Your task to perform on an android device: Open Google Chrome Image 0: 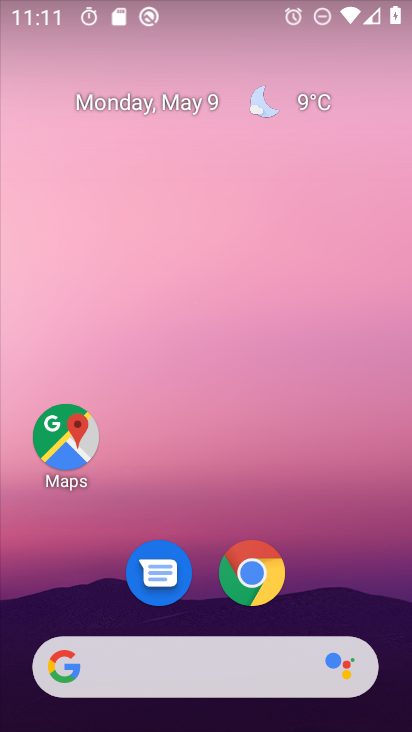
Step 0: click (254, 571)
Your task to perform on an android device: Open Google Chrome Image 1: 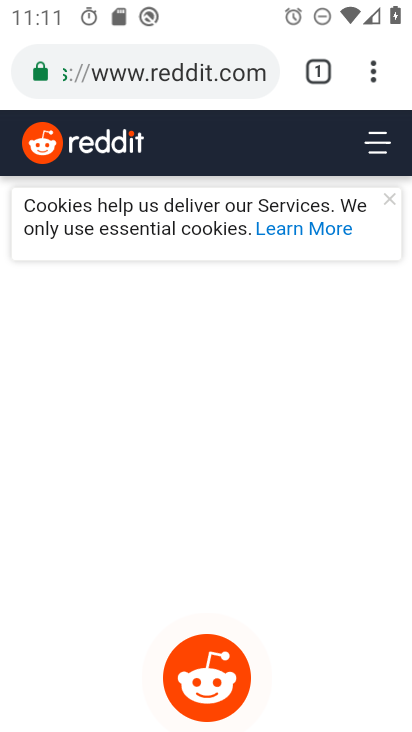
Step 1: task complete